Your task to perform on an android device: star an email in the gmail app Image 0: 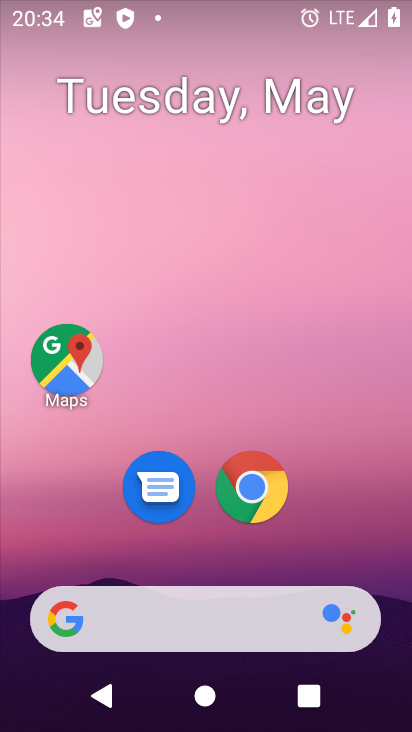
Step 0: drag from (343, 517) to (187, 13)
Your task to perform on an android device: star an email in the gmail app Image 1: 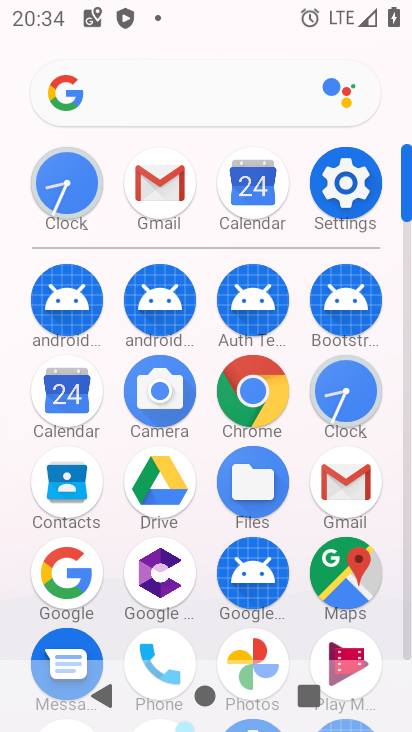
Step 1: click (158, 183)
Your task to perform on an android device: star an email in the gmail app Image 2: 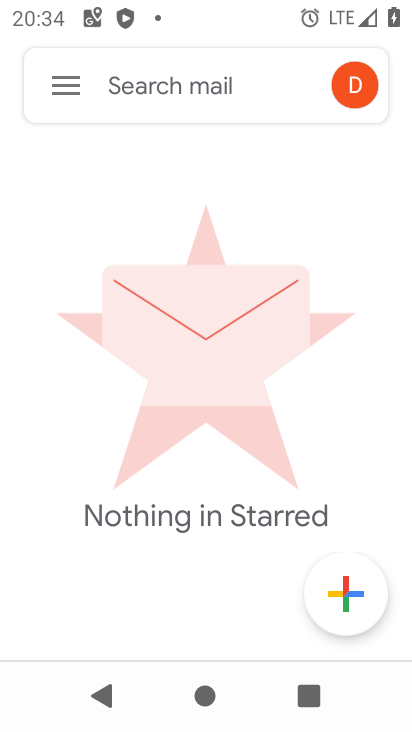
Step 2: click (61, 83)
Your task to perform on an android device: star an email in the gmail app Image 3: 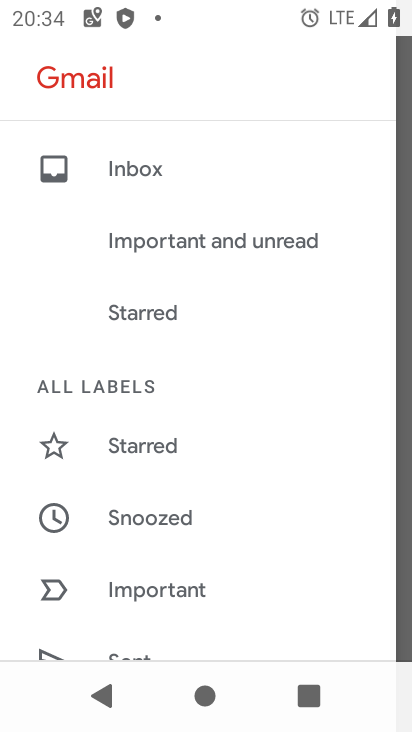
Step 3: drag from (218, 452) to (209, 176)
Your task to perform on an android device: star an email in the gmail app Image 4: 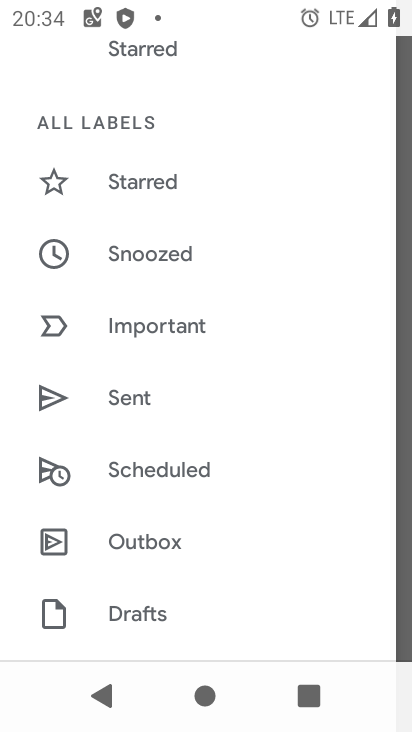
Step 4: drag from (194, 483) to (157, 181)
Your task to perform on an android device: star an email in the gmail app Image 5: 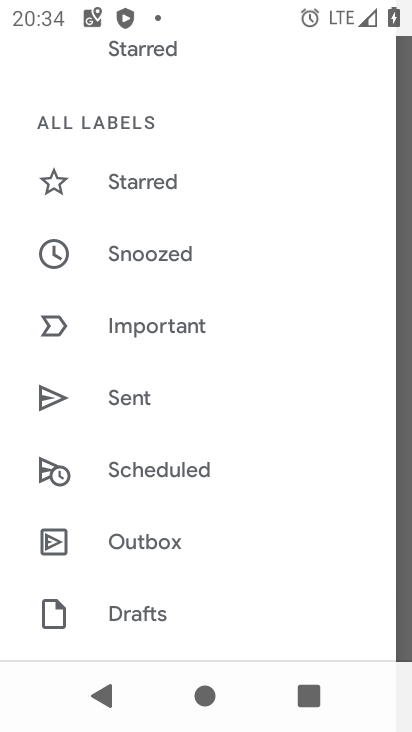
Step 5: drag from (263, 504) to (246, 184)
Your task to perform on an android device: star an email in the gmail app Image 6: 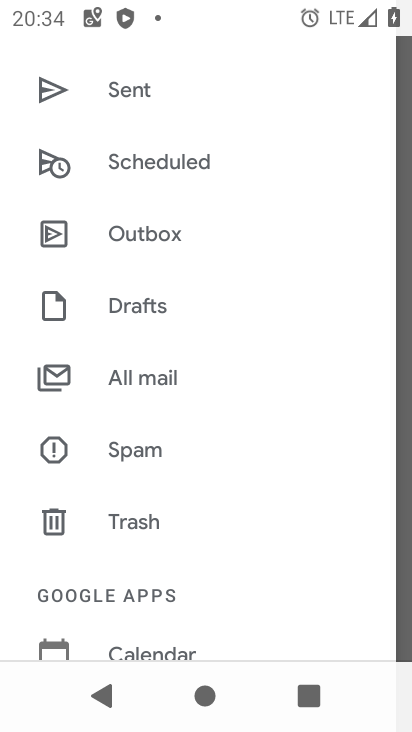
Step 6: click (149, 369)
Your task to perform on an android device: star an email in the gmail app Image 7: 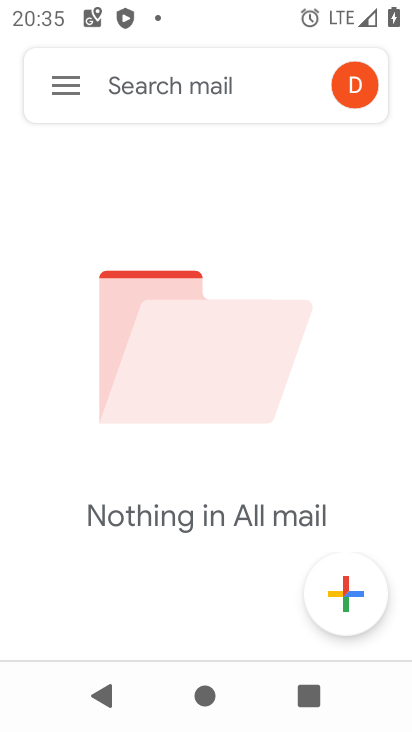
Step 7: task complete